Your task to perform on an android device: turn on airplane mode Image 0: 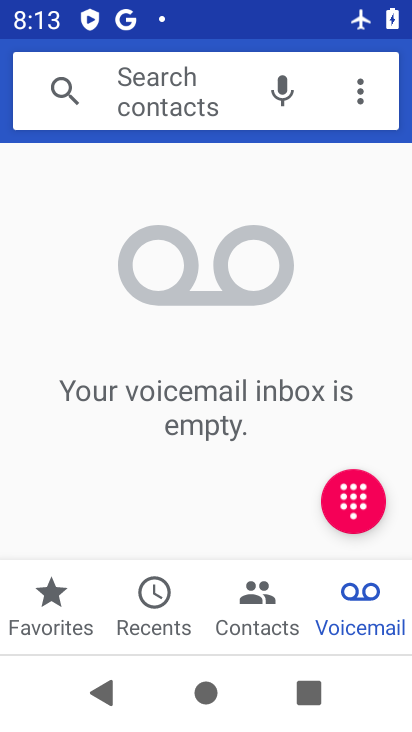
Step 0: press home button
Your task to perform on an android device: turn on airplane mode Image 1: 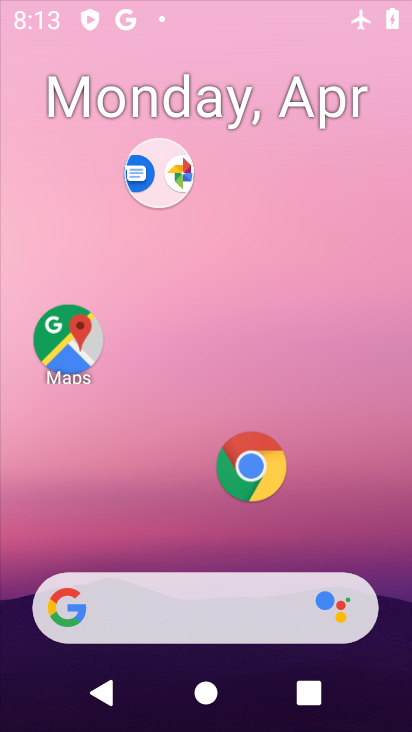
Step 1: drag from (168, 544) to (289, 148)
Your task to perform on an android device: turn on airplane mode Image 2: 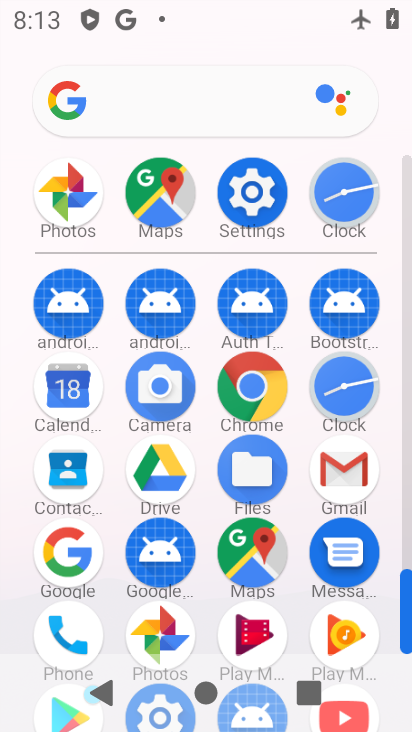
Step 2: click (261, 189)
Your task to perform on an android device: turn on airplane mode Image 3: 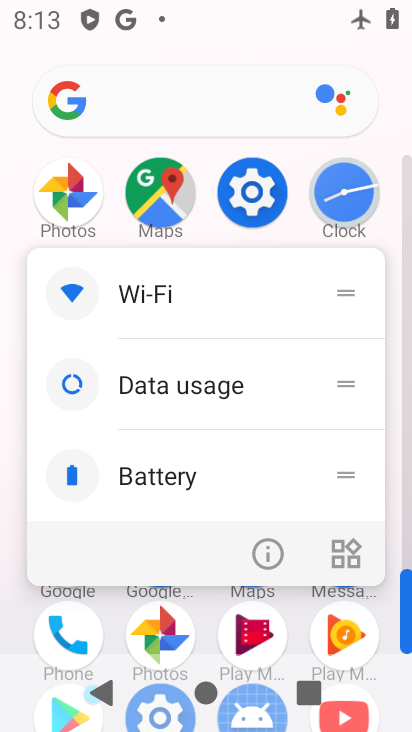
Step 3: click (263, 538)
Your task to perform on an android device: turn on airplane mode Image 4: 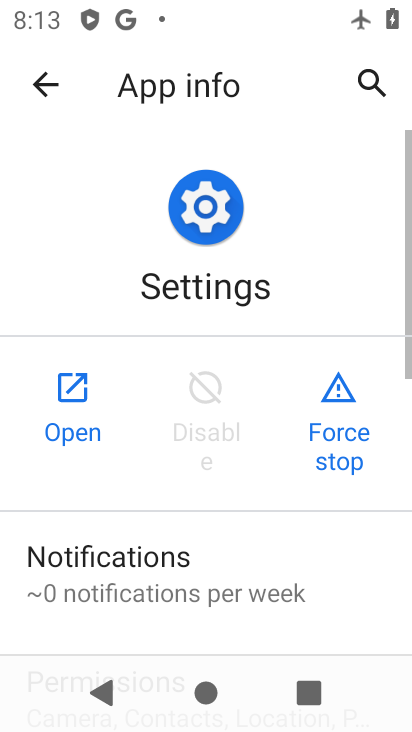
Step 4: click (66, 401)
Your task to perform on an android device: turn on airplane mode Image 5: 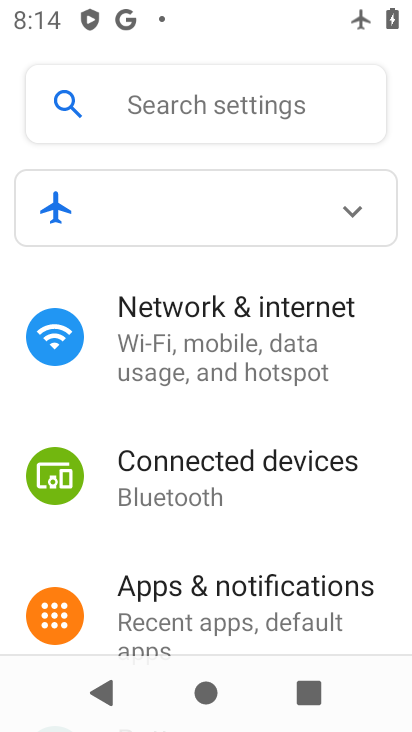
Step 5: click (183, 329)
Your task to perform on an android device: turn on airplane mode Image 6: 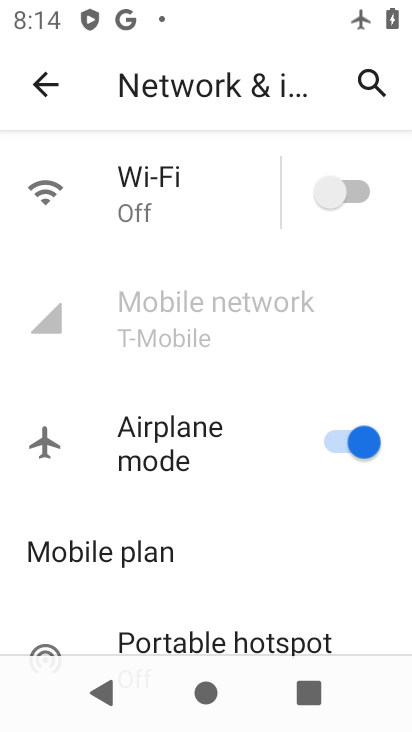
Step 6: task complete